Your task to perform on an android device: make emails show in primary in the gmail app Image 0: 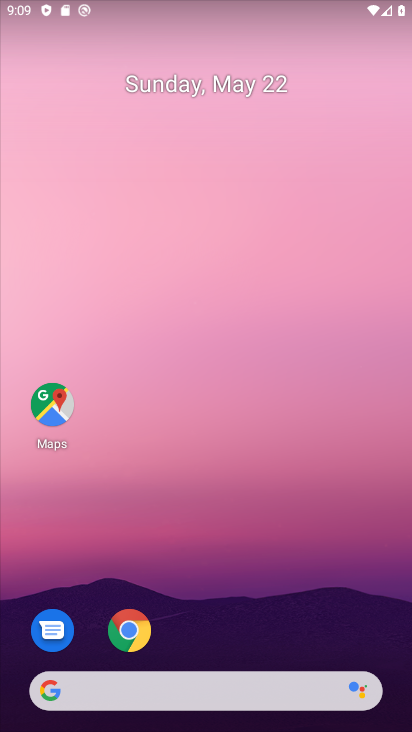
Step 0: drag from (401, 682) to (399, 347)
Your task to perform on an android device: make emails show in primary in the gmail app Image 1: 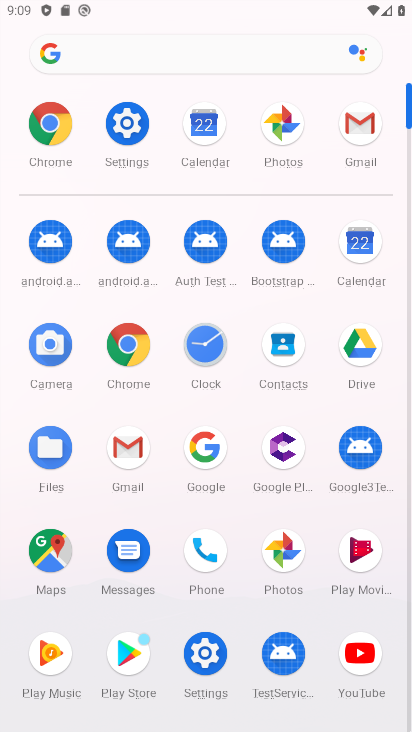
Step 1: click (118, 434)
Your task to perform on an android device: make emails show in primary in the gmail app Image 2: 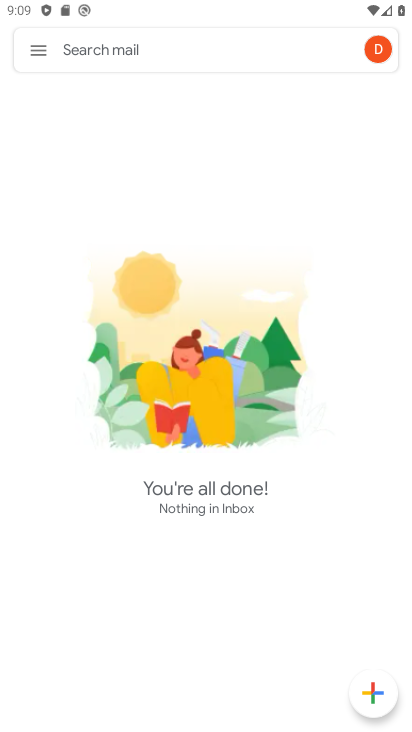
Step 2: click (41, 46)
Your task to perform on an android device: make emails show in primary in the gmail app Image 3: 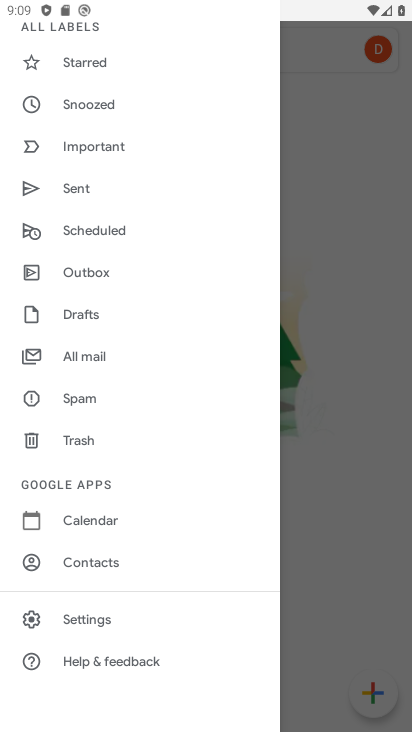
Step 3: click (80, 618)
Your task to perform on an android device: make emails show in primary in the gmail app Image 4: 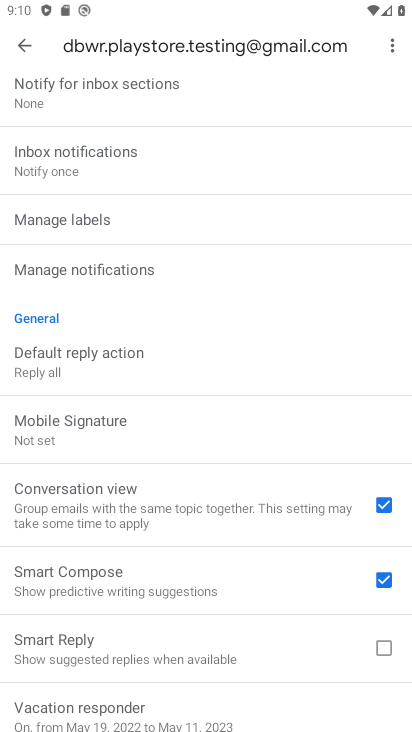
Step 4: click (67, 156)
Your task to perform on an android device: make emails show in primary in the gmail app Image 5: 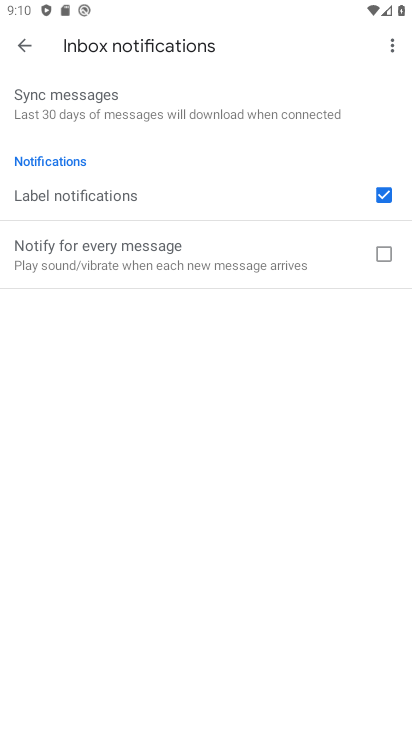
Step 5: click (24, 42)
Your task to perform on an android device: make emails show in primary in the gmail app Image 6: 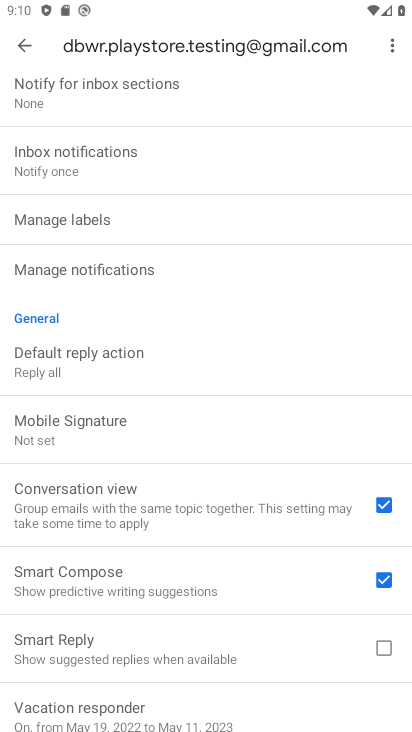
Step 6: click (21, 40)
Your task to perform on an android device: make emails show in primary in the gmail app Image 7: 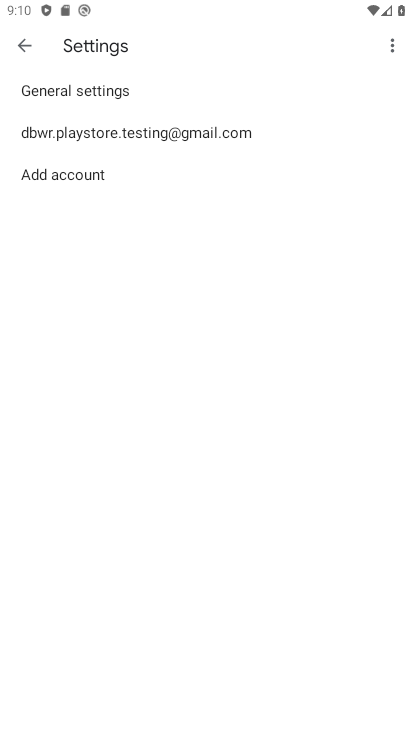
Step 7: click (52, 128)
Your task to perform on an android device: make emails show in primary in the gmail app Image 8: 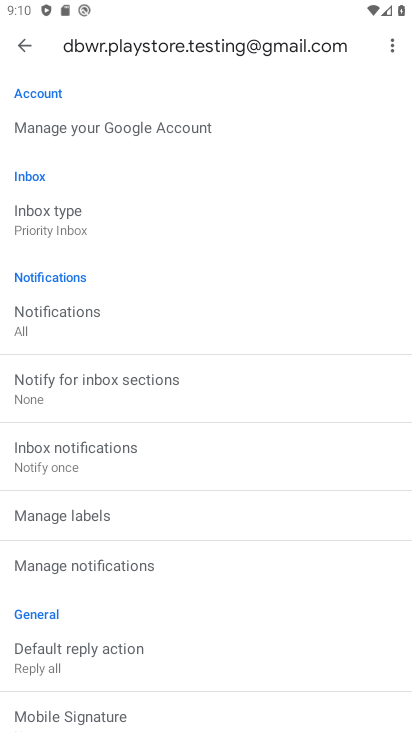
Step 8: click (41, 223)
Your task to perform on an android device: make emails show in primary in the gmail app Image 9: 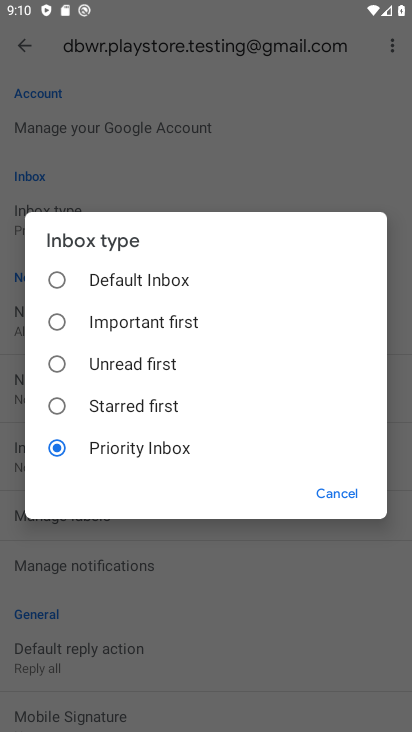
Step 9: click (52, 277)
Your task to perform on an android device: make emails show in primary in the gmail app Image 10: 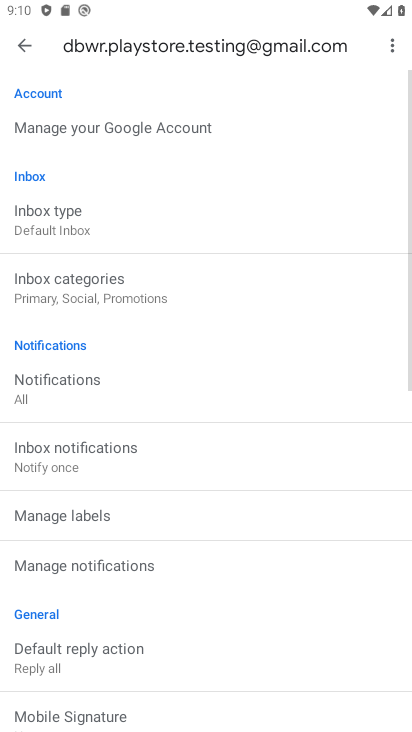
Step 10: click (52, 299)
Your task to perform on an android device: make emails show in primary in the gmail app Image 11: 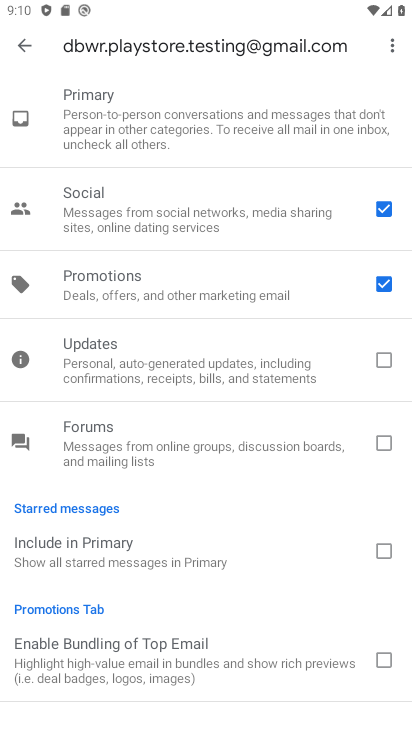
Step 11: click (382, 273)
Your task to perform on an android device: make emails show in primary in the gmail app Image 12: 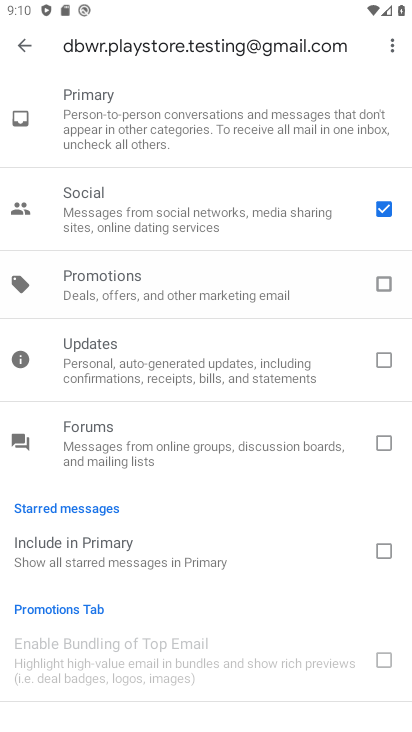
Step 12: click (378, 214)
Your task to perform on an android device: make emails show in primary in the gmail app Image 13: 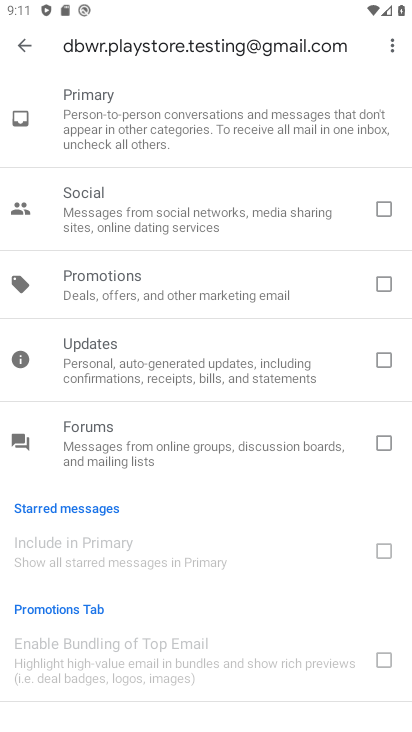
Step 13: click (31, 48)
Your task to perform on an android device: make emails show in primary in the gmail app Image 14: 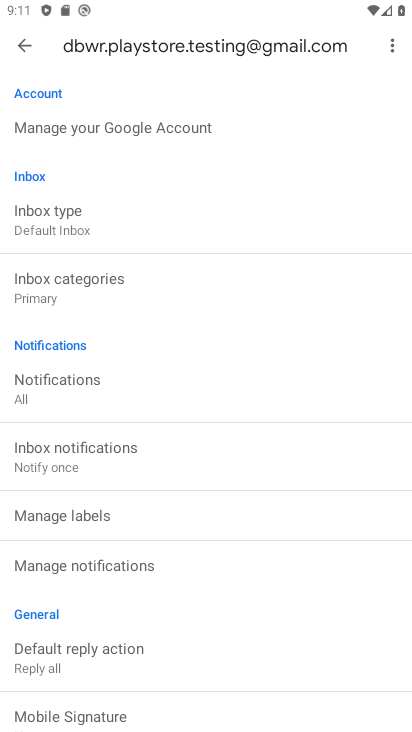
Step 14: task complete